Your task to perform on an android device: Check the latest 3D printers on Target. Image 0: 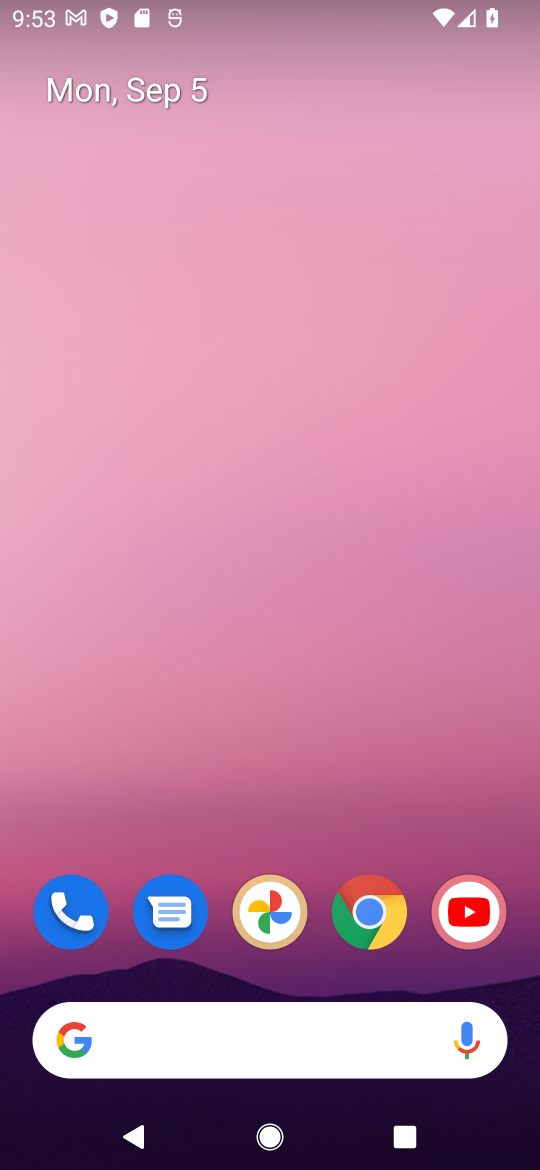
Step 0: click (367, 923)
Your task to perform on an android device: Check the latest 3D printers on Target. Image 1: 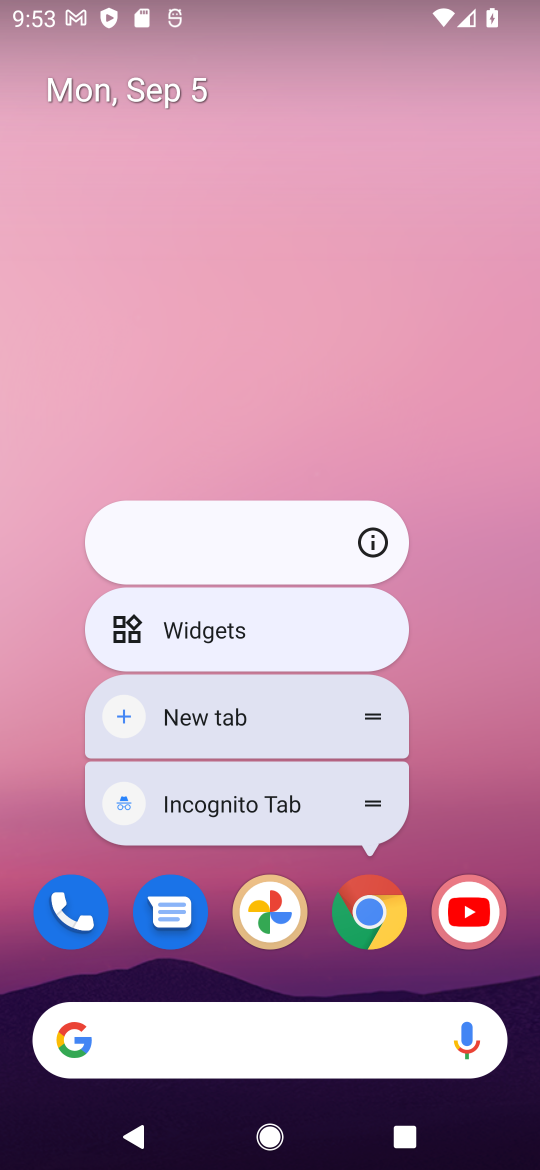
Step 1: click (367, 922)
Your task to perform on an android device: Check the latest 3D printers on Target. Image 2: 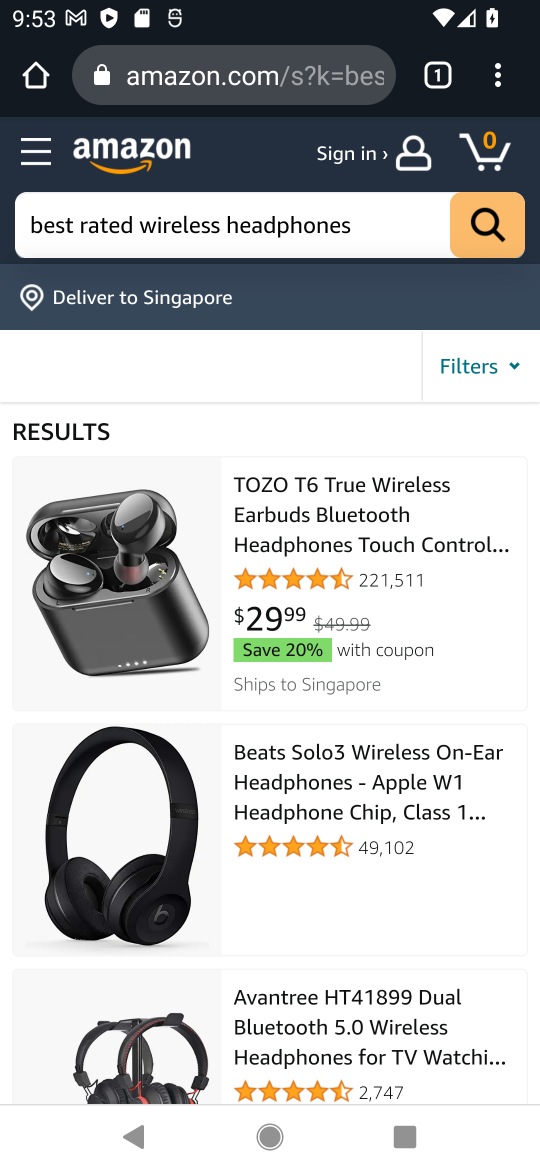
Step 2: click (256, 74)
Your task to perform on an android device: Check the latest 3D printers on Target. Image 3: 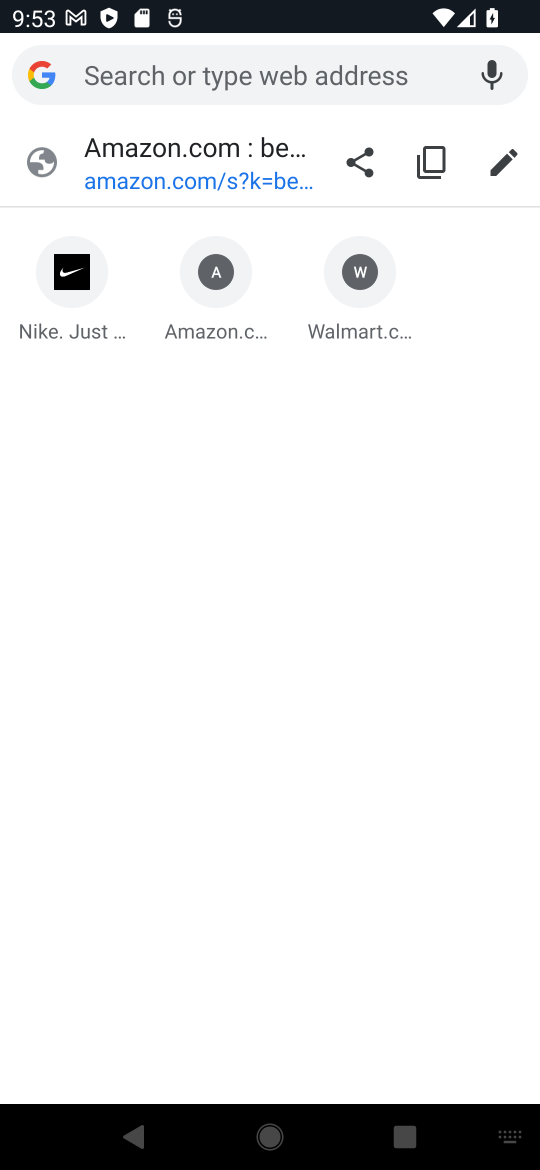
Step 3: type "target"
Your task to perform on an android device: Check the latest 3D printers on Target. Image 4: 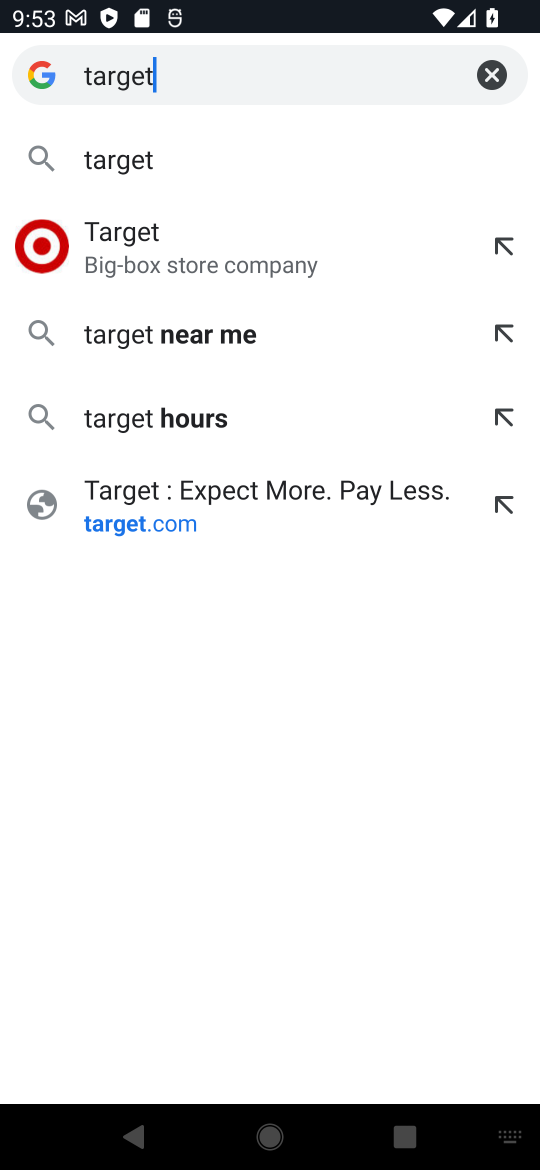
Step 4: click (144, 250)
Your task to perform on an android device: Check the latest 3D printers on Target. Image 5: 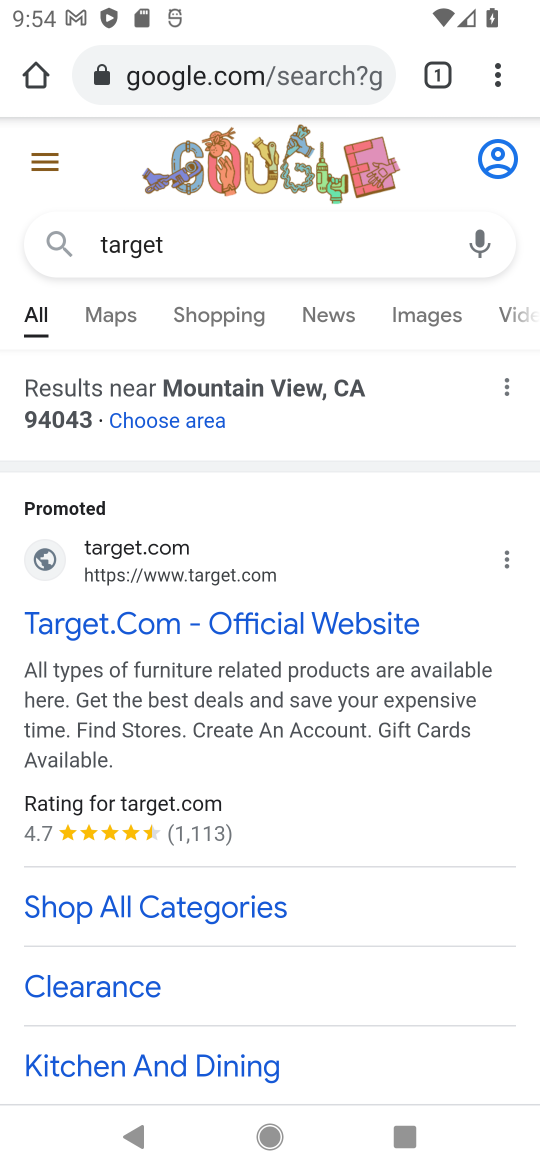
Step 5: click (105, 628)
Your task to perform on an android device: Check the latest 3D printers on Target. Image 6: 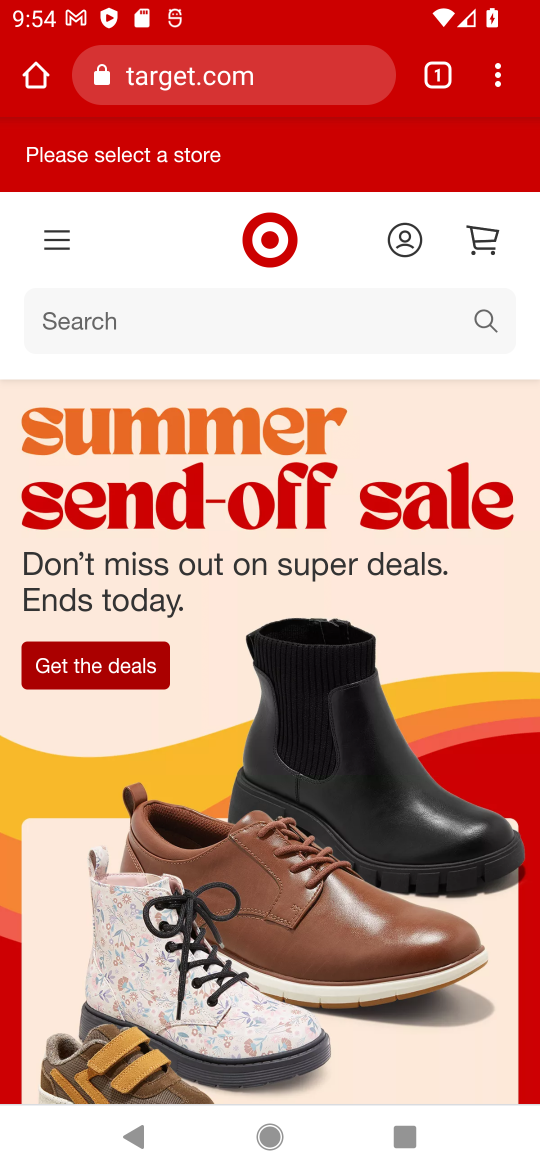
Step 6: click (495, 337)
Your task to perform on an android device: Check the latest 3D printers on Target. Image 7: 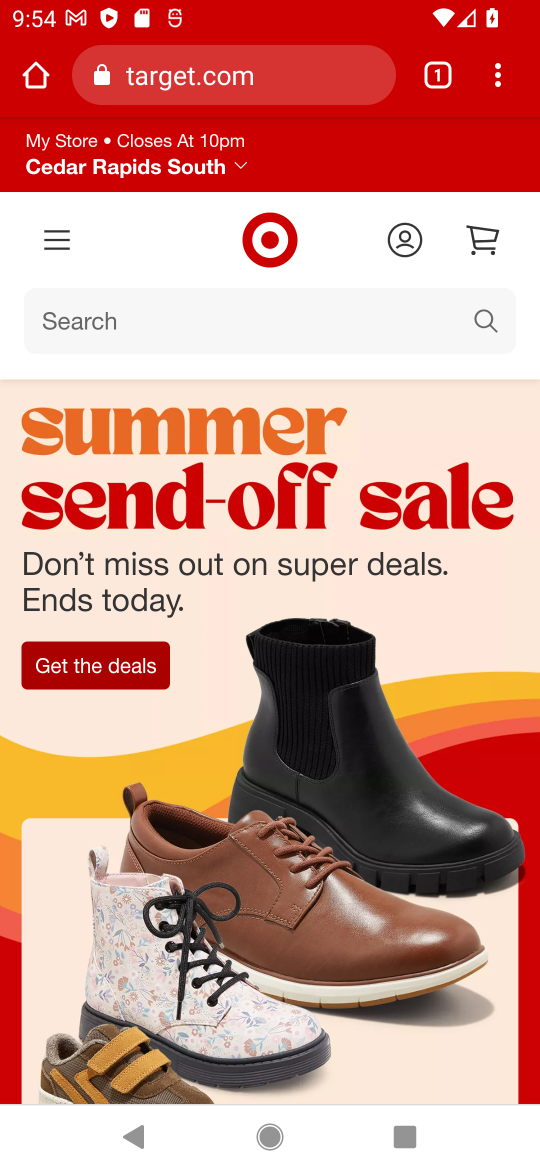
Step 7: click (489, 321)
Your task to perform on an android device: Check the latest 3D printers on Target. Image 8: 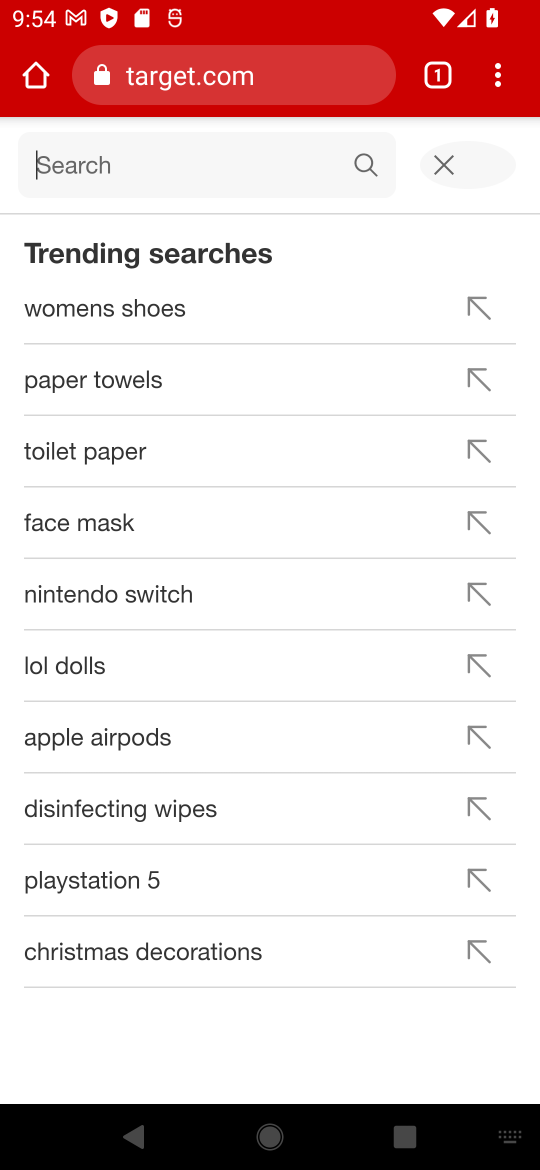
Step 8: type " latest 3D printers"
Your task to perform on an android device: Check the latest 3D printers on Target. Image 9: 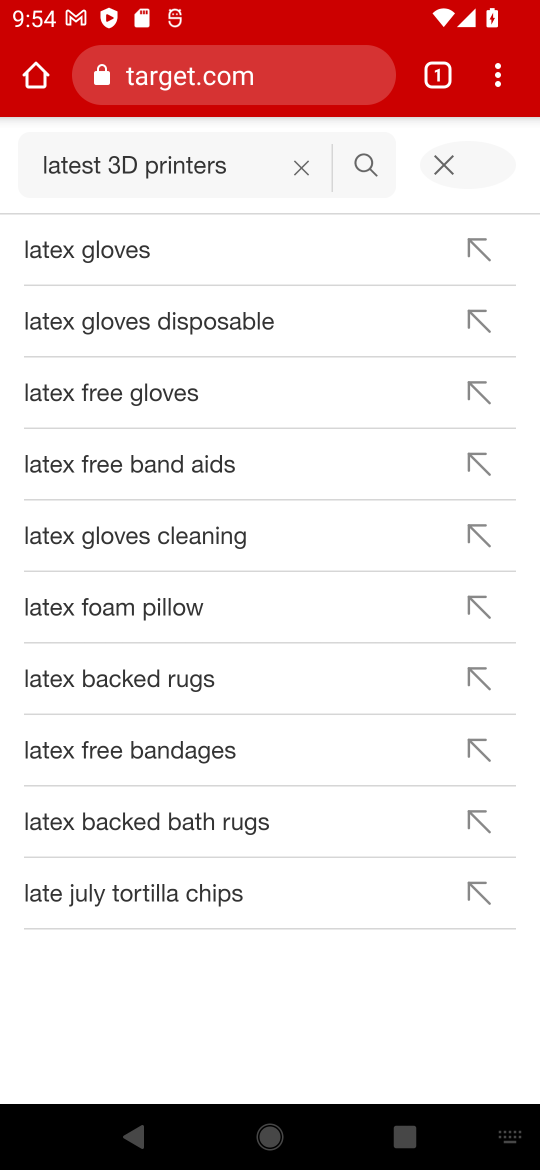
Step 9: click (370, 165)
Your task to perform on an android device: Check the latest 3D printers on Target. Image 10: 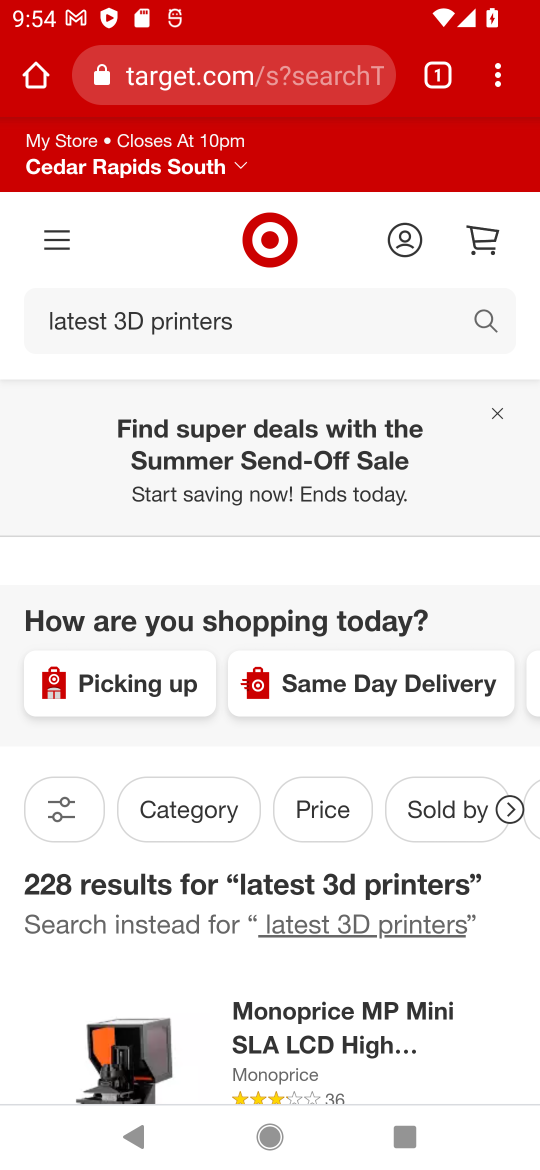
Step 10: task complete